Your task to perform on an android device: turn on airplane mode Image 0: 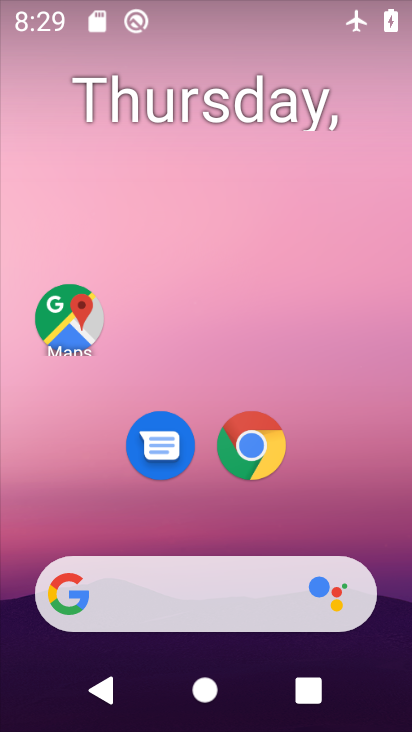
Step 0: drag from (342, 468) to (329, 49)
Your task to perform on an android device: turn on airplane mode Image 1: 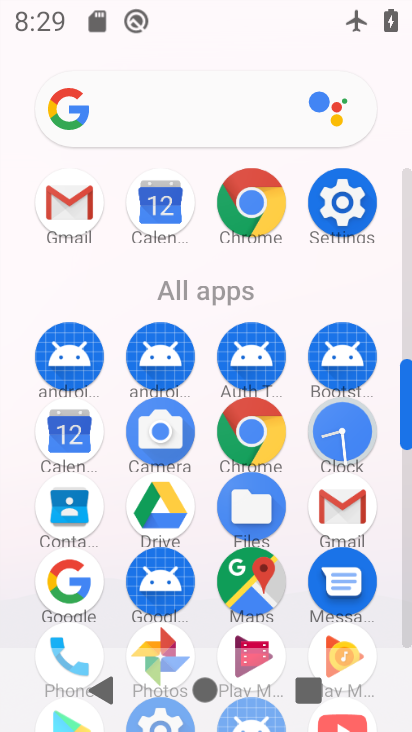
Step 1: click (342, 201)
Your task to perform on an android device: turn on airplane mode Image 2: 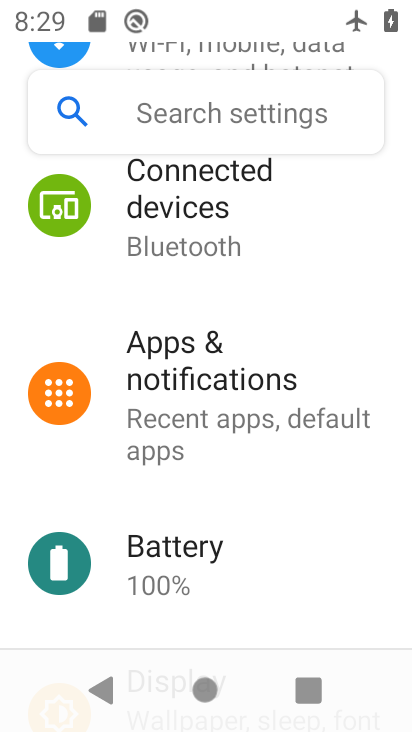
Step 2: drag from (339, 212) to (306, 487)
Your task to perform on an android device: turn on airplane mode Image 3: 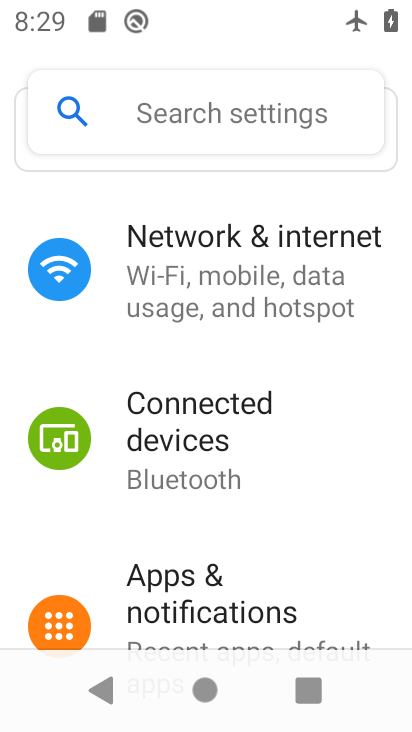
Step 3: click (249, 317)
Your task to perform on an android device: turn on airplane mode Image 4: 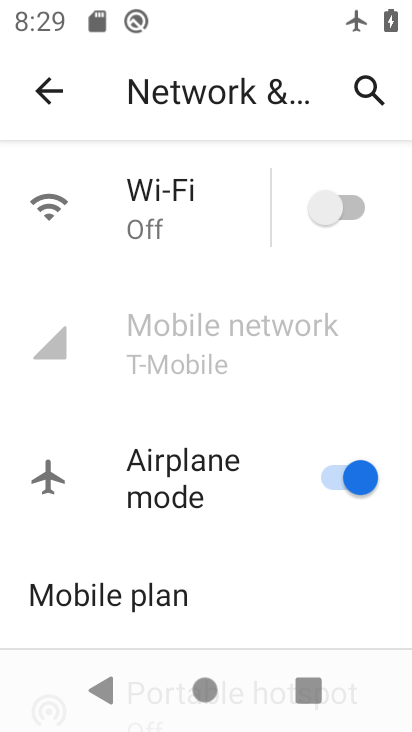
Step 4: task complete